Your task to perform on an android device: install app "Facebook Lite" Image 0: 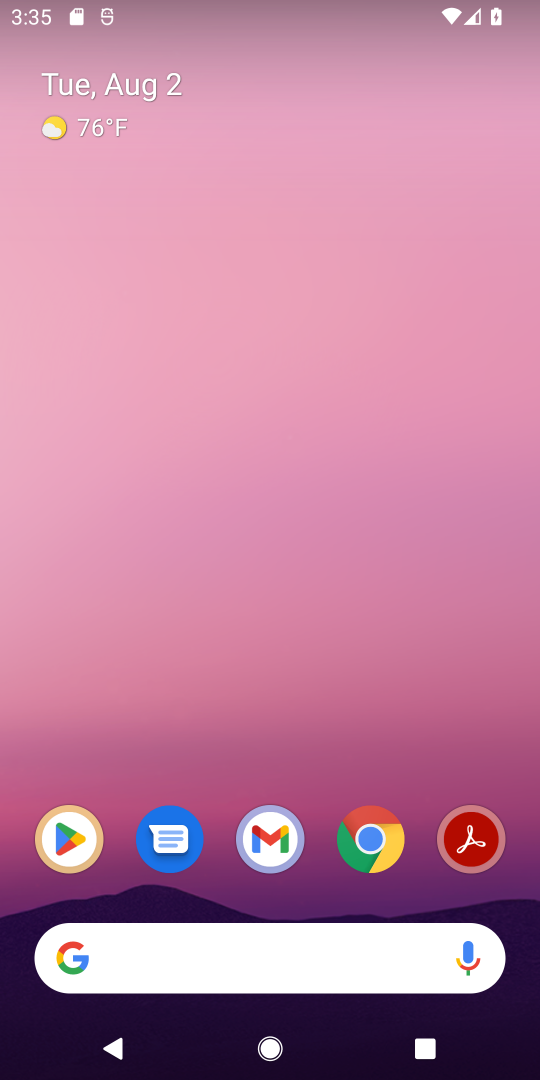
Step 0: drag from (229, 896) to (277, 98)
Your task to perform on an android device: install app "Facebook Lite" Image 1: 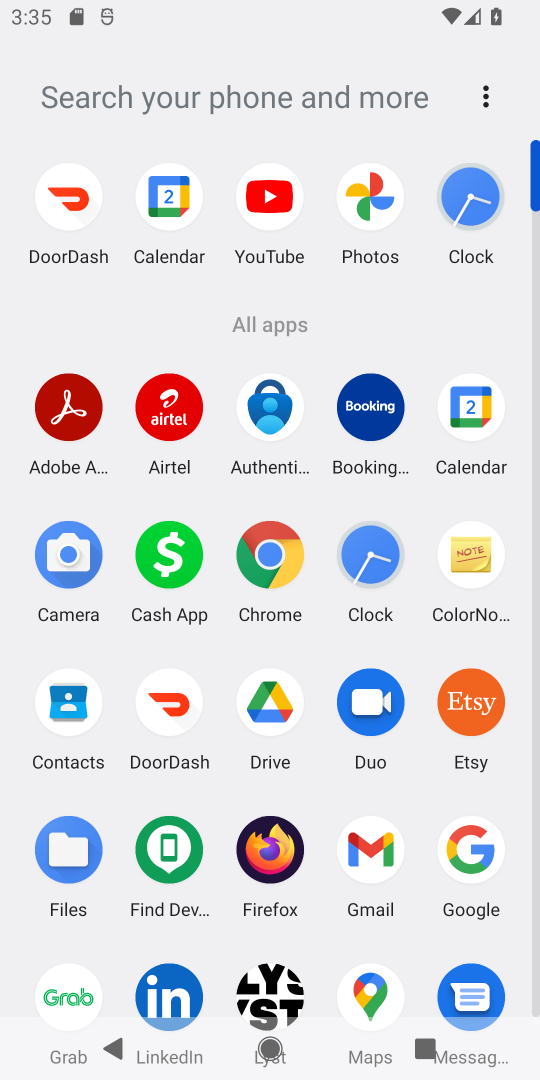
Step 1: click (277, 98)
Your task to perform on an android device: install app "Facebook Lite" Image 2: 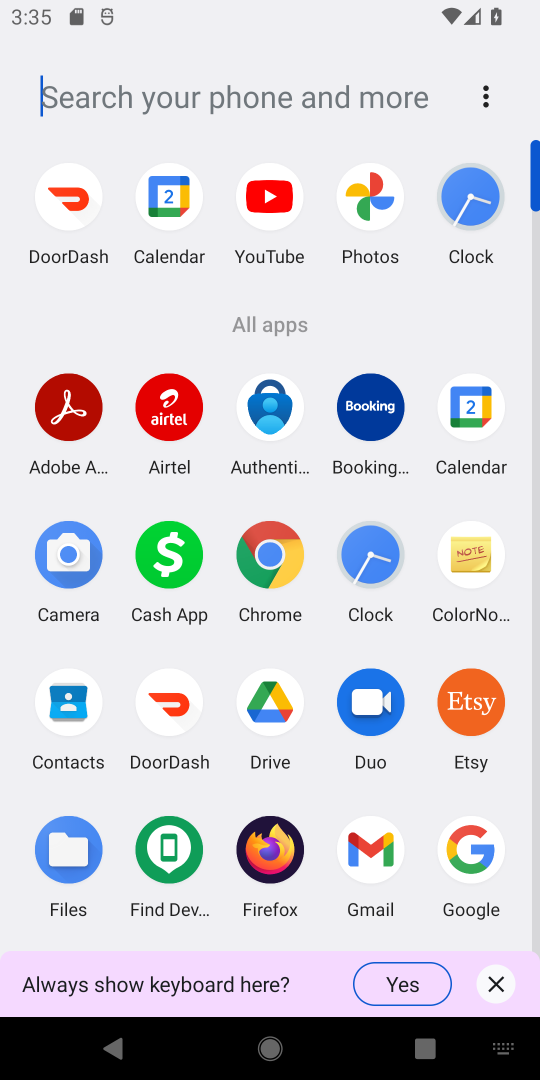
Step 2: press home button
Your task to perform on an android device: install app "Facebook Lite" Image 3: 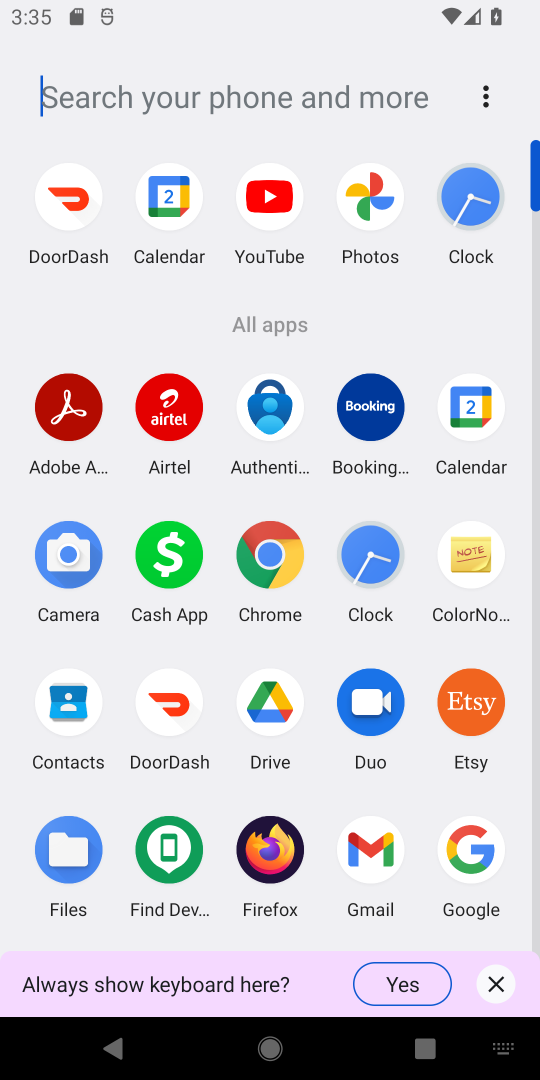
Step 3: type "fa"
Your task to perform on an android device: install app "Facebook Lite" Image 4: 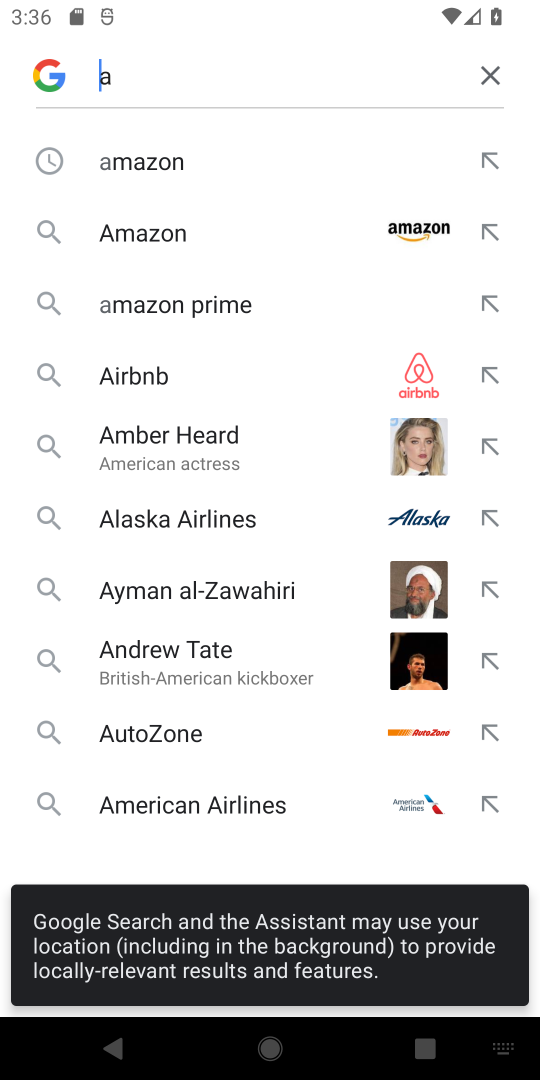
Step 4: click (477, 87)
Your task to perform on an android device: install app "Facebook Lite" Image 5: 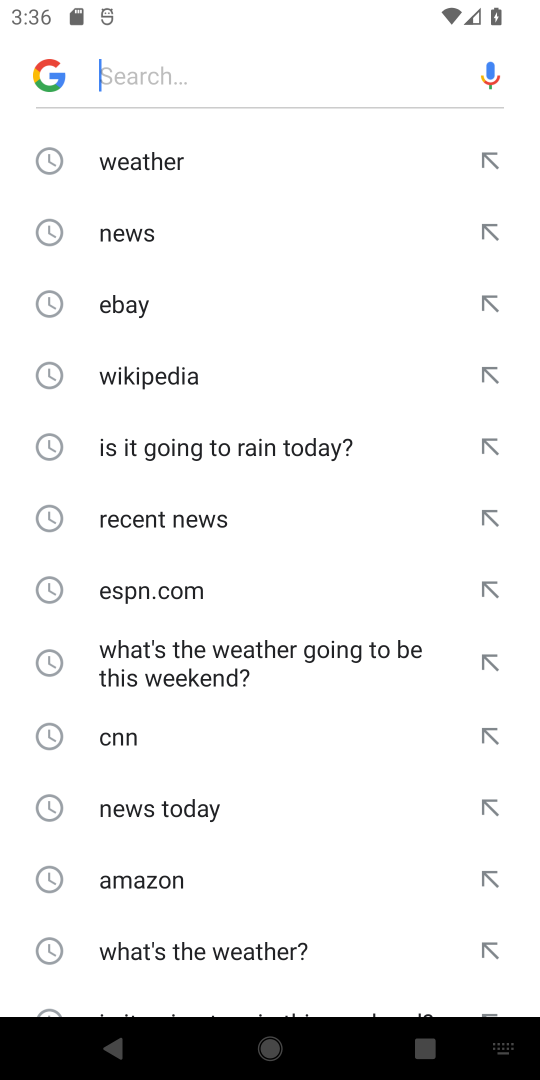
Step 5: press back button
Your task to perform on an android device: install app "Facebook Lite" Image 6: 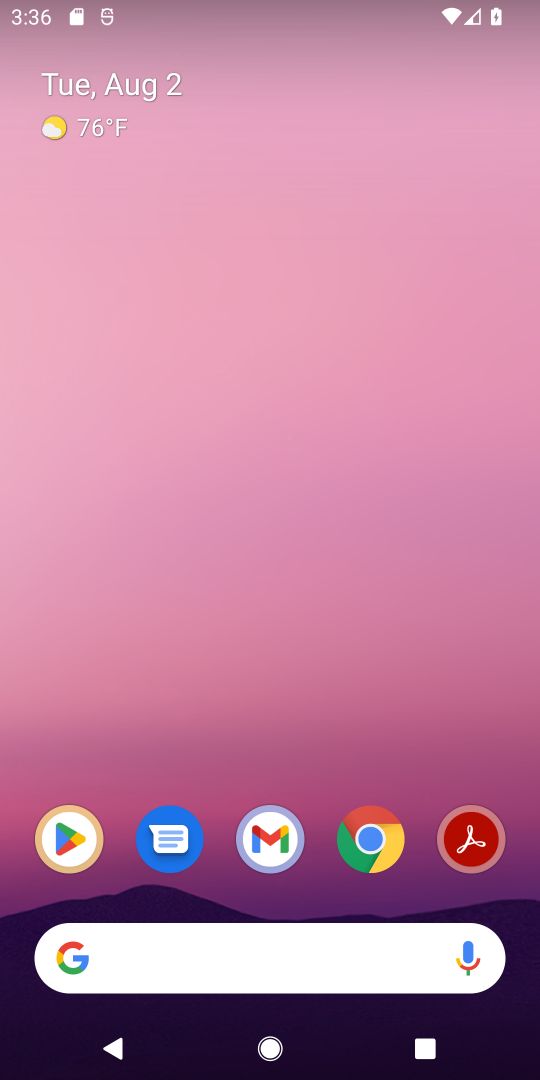
Step 6: press back button
Your task to perform on an android device: install app "Facebook Lite" Image 7: 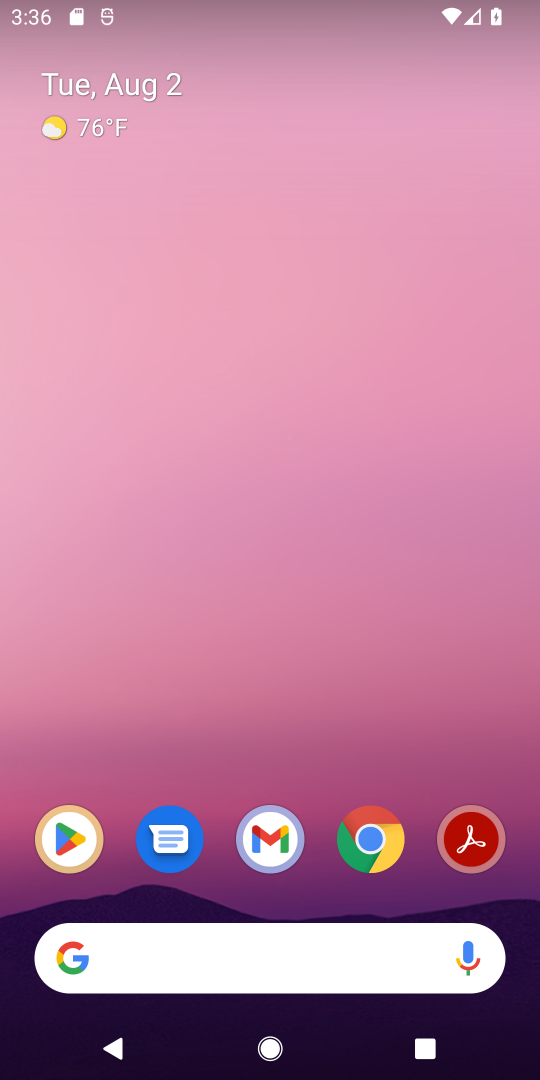
Step 7: click (54, 852)
Your task to perform on an android device: install app "Facebook Lite" Image 8: 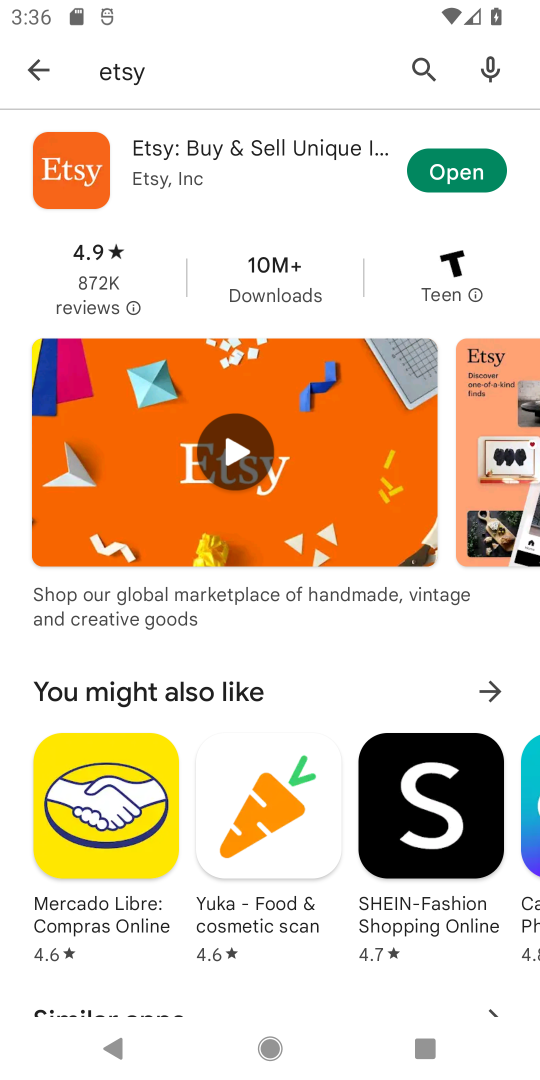
Step 8: click (418, 78)
Your task to perform on an android device: install app "Facebook Lite" Image 9: 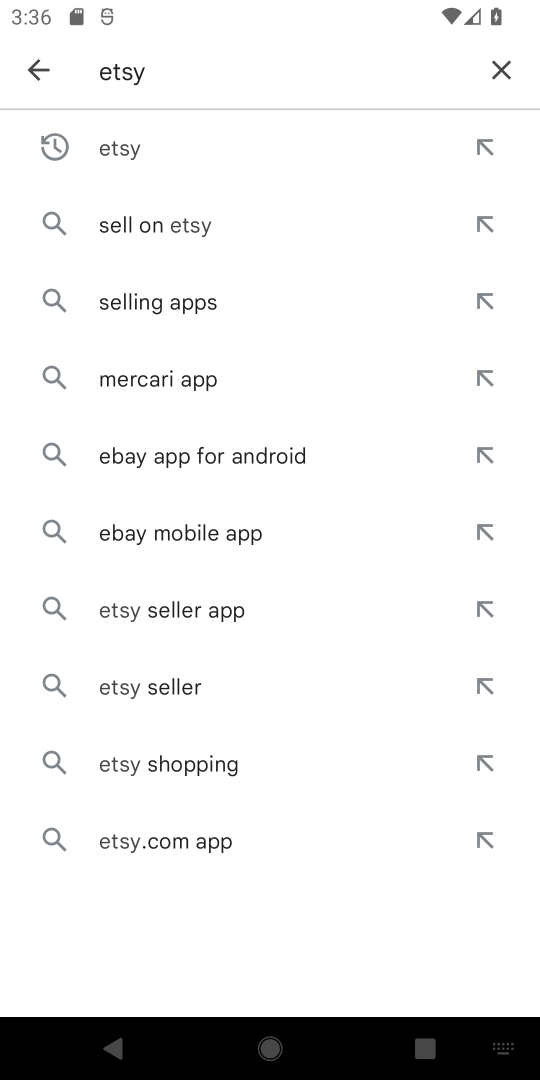
Step 9: click (496, 76)
Your task to perform on an android device: install app "Facebook Lite" Image 10: 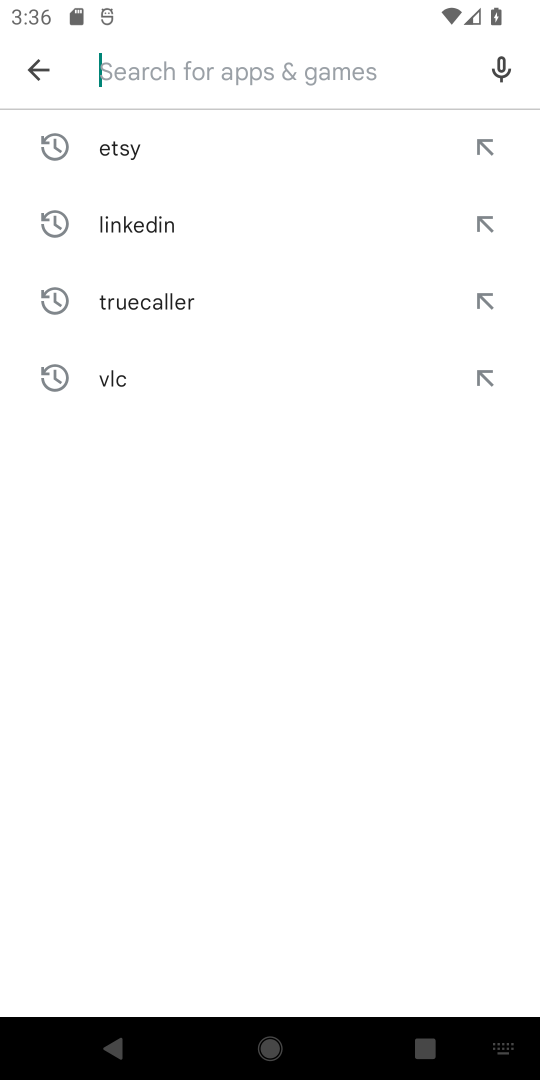
Step 10: type "facebook"
Your task to perform on an android device: install app "Facebook Lite" Image 11: 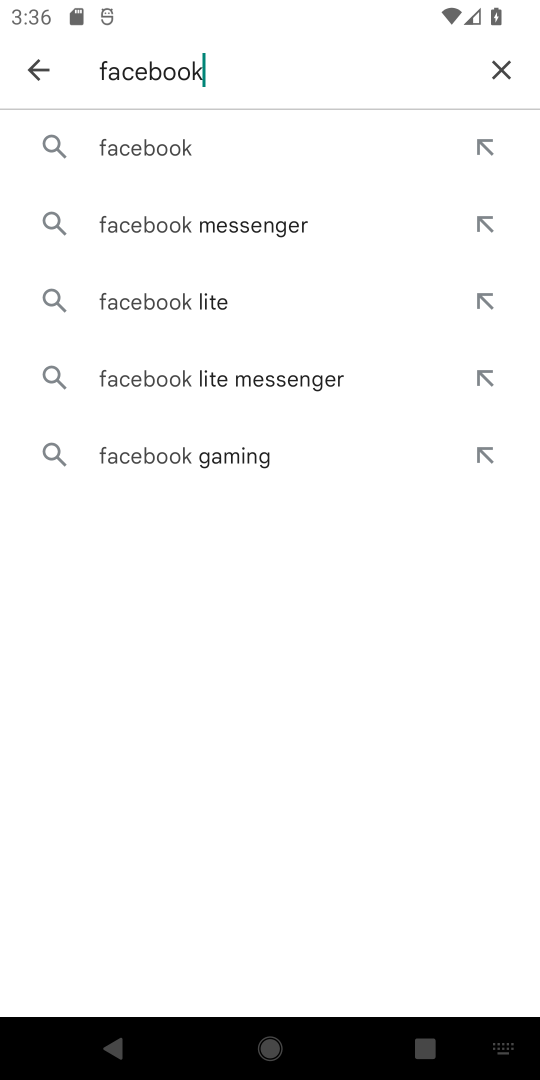
Step 11: click (296, 297)
Your task to perform on an android device: install app "Facebook Lite" Image 12: 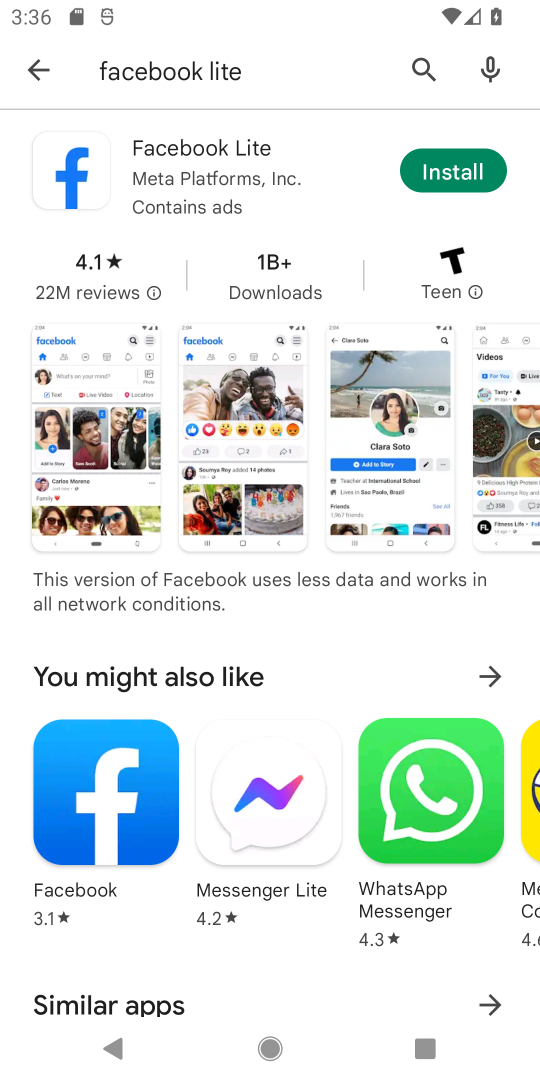
Step 12: click (459, 172)
Your task to perform on an android device: install app "Facebook Lite" Image 13: 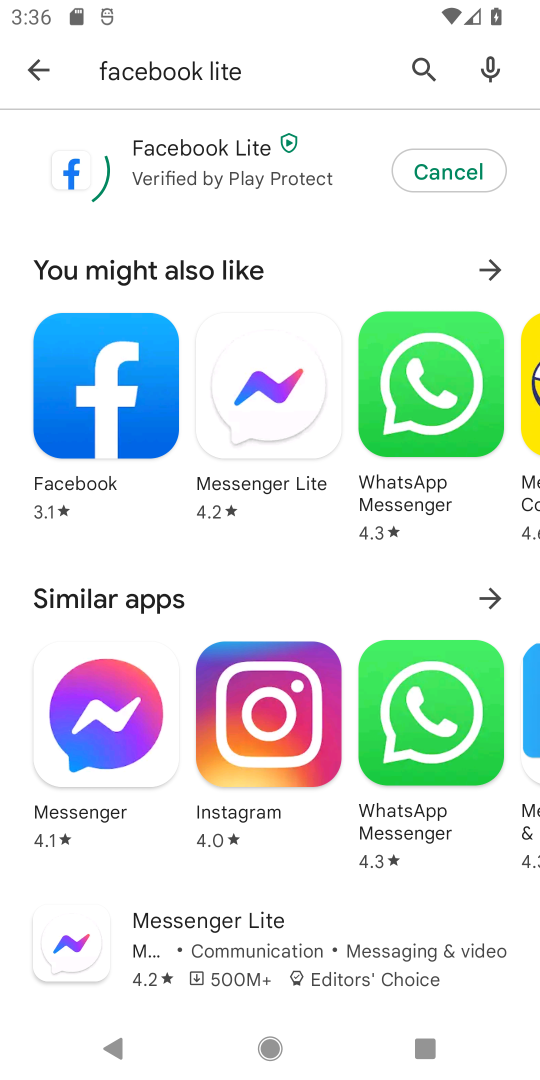
Step 13: task complete